Your task to perform on an android device: What's the weather going to be tomorrow? Image 0: 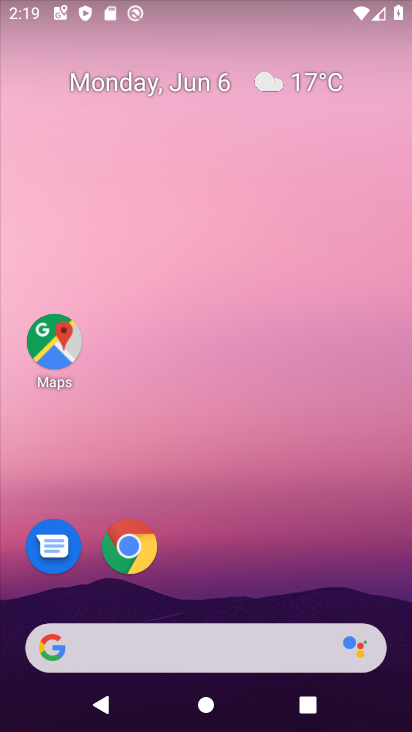
Step 0: click (232, 643)
Your task to perform on an android device: What's the weather going to be tomorrow? Image 1: 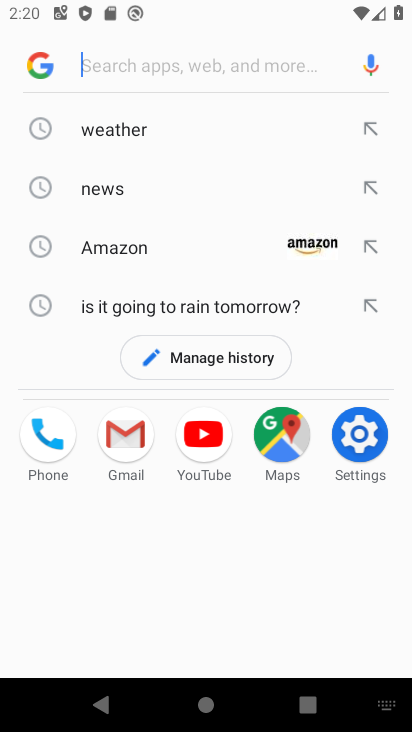
Step 1: click (144, 149)
Your task to perform on an android device: What's the weather going to be tomorrow? Image 2: 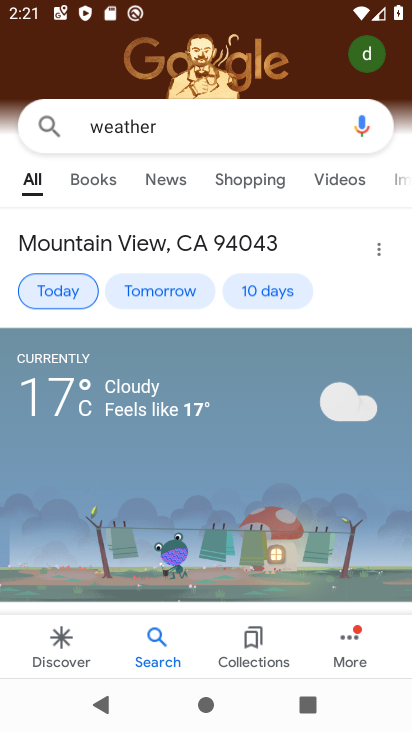
Step 2: click (164, 282)
Your task to perform on an android device: What's the weather going to be tomorrow? Image 3: 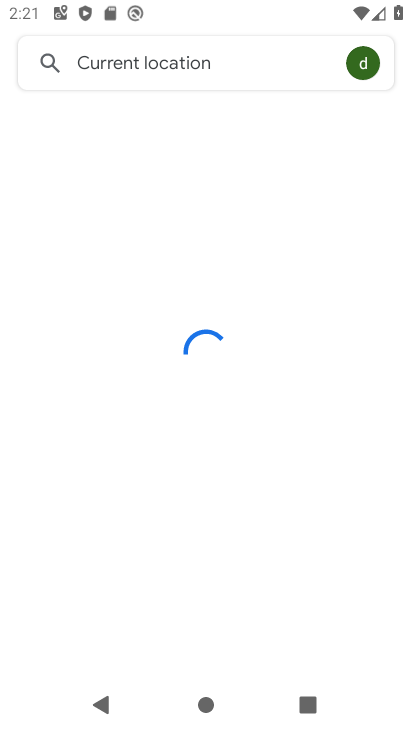
Step 3: task complete